Your task to perform on an android device: check storage Image 0: 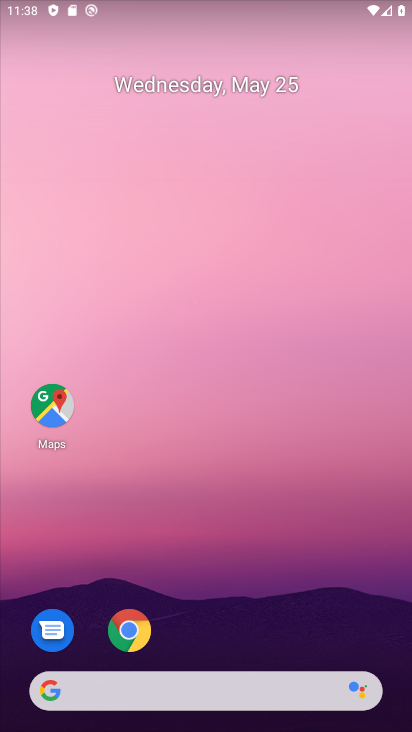
Step 0: drag from (191, 660) to (299, 110)
Your task to perform on an android device: check storage Image 1: 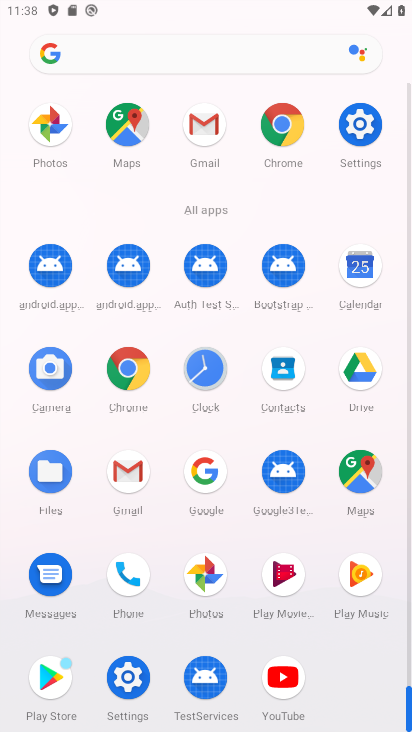
Step 1: drag from (175, 634) to (239, 375)
Your task to perform on an android device: check storage Image 2: 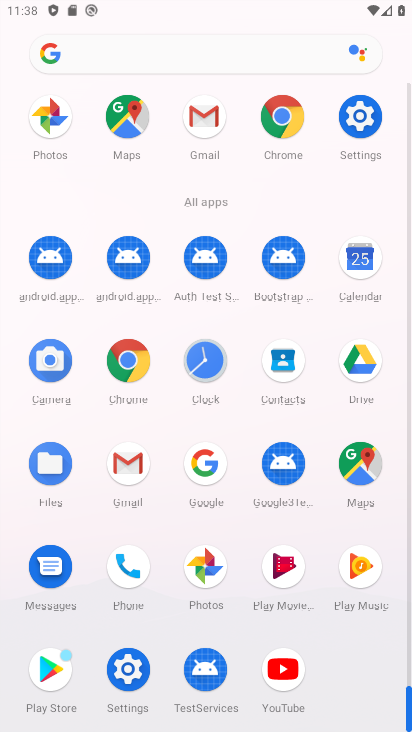
Step 2: click (110, 675)
Your task to perform on an android device: check storage Image 3: 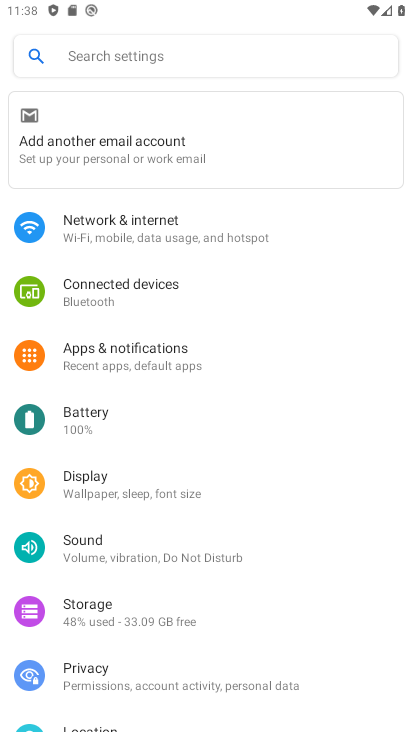
Step 3: click (148, 628)
Your task to perform on an android device: check storage Image 4: 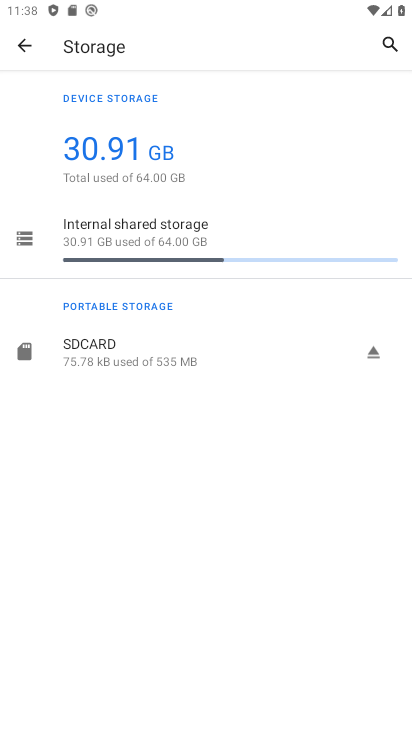
Step 4: click (200, 251)
Your task to perform on an android device: check storage Image 5: 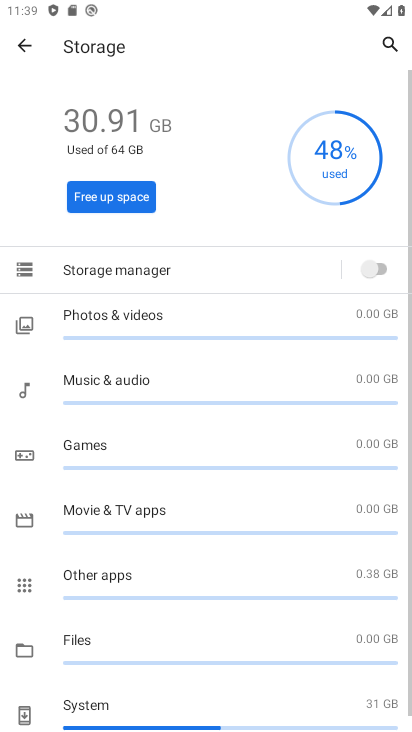
Step 5: task complete